Your task to perform on an android device: move a message to another label in the gmail app Image 0: 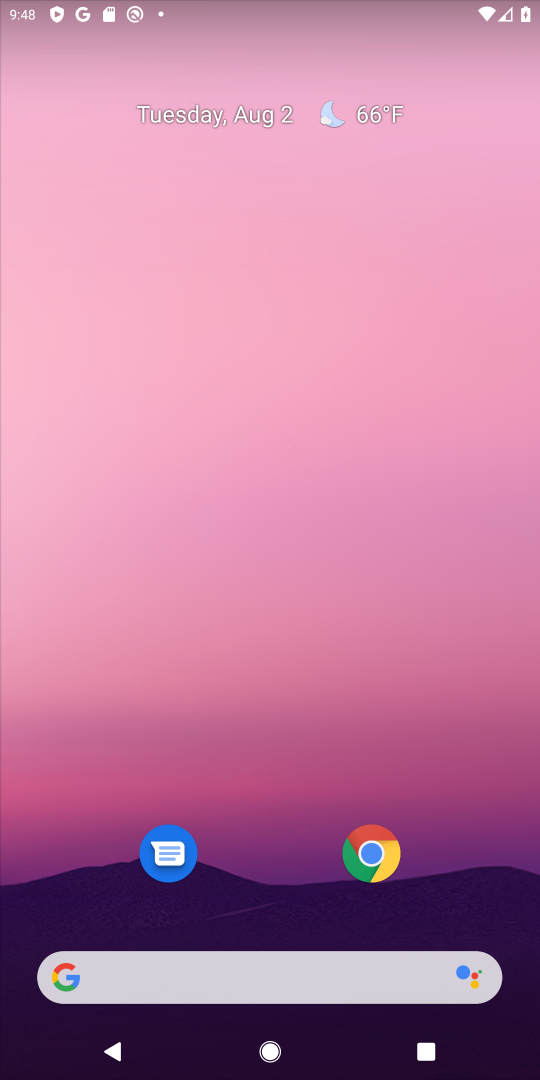
Step 0: drag from (481, 870) to (402, 113)
Your task to perform on an android device: move a message to another label in the gmail app Image 1: 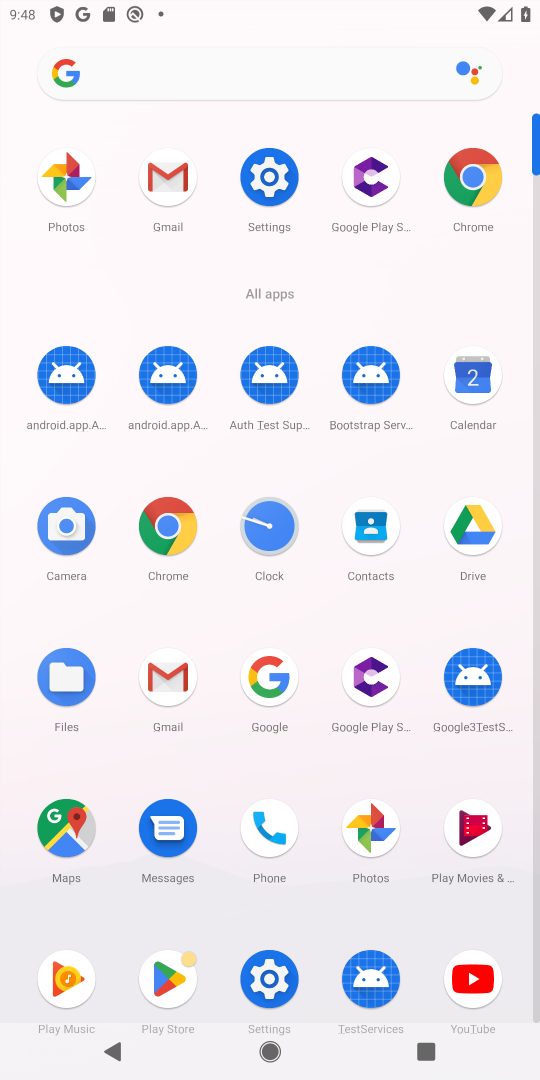
Step 1: click (173, 203)
Your task to perform on an android device: move a message to another label in the gmail app Image 2: 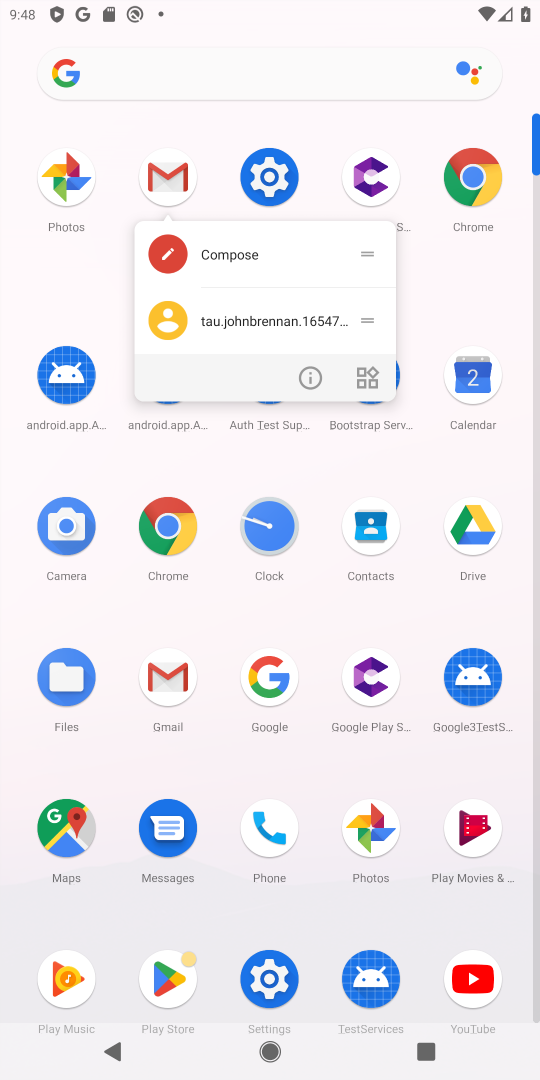
Step 2: click (156, 173)
Your task to perform on an android device: move a message to another label in the gmail app Image 3: 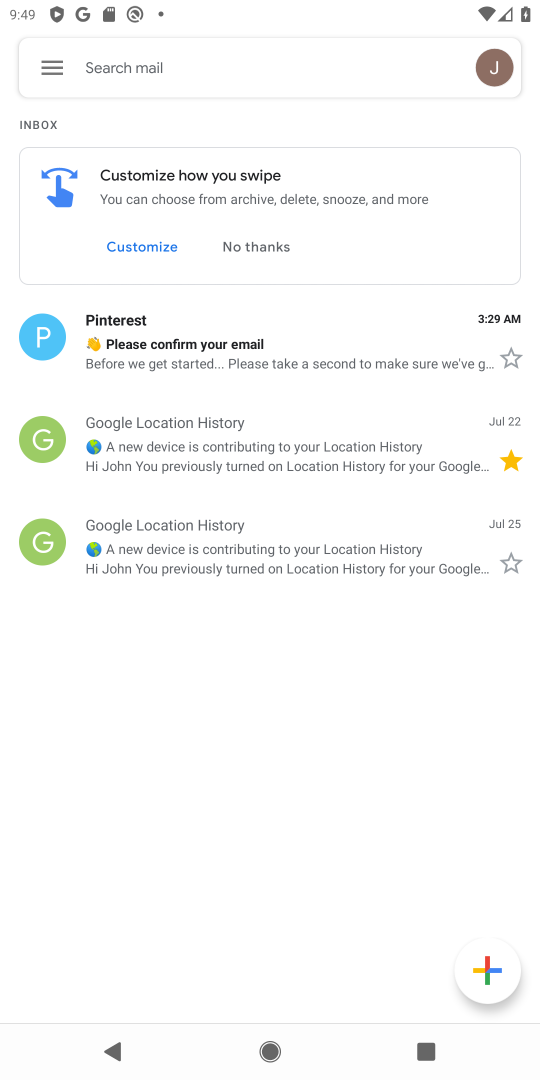
Step 3: click (245, 366)
Your task to perform on an android device: move a message to another label in the gmail app Image 4: 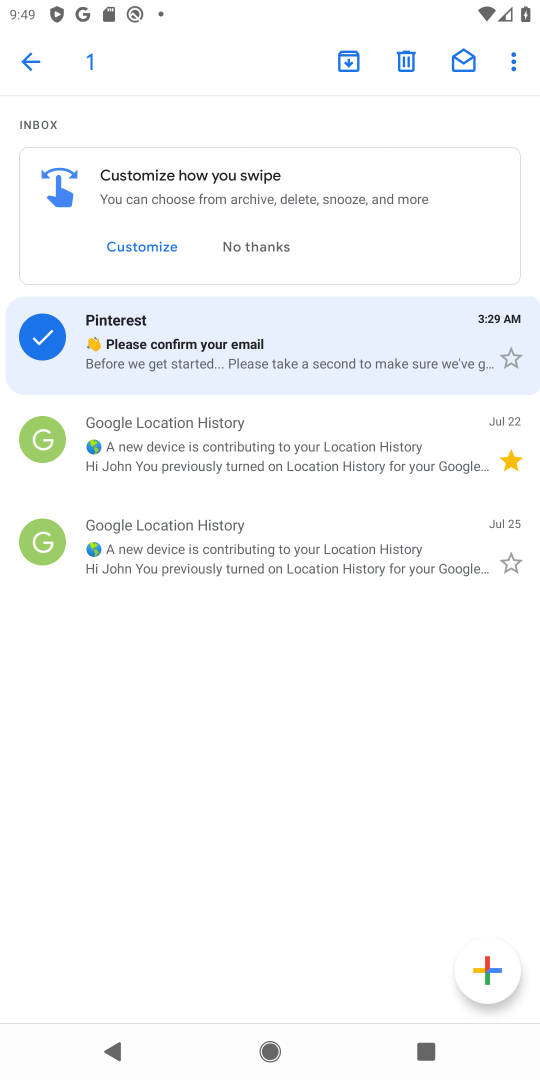
Step 4: click (507, 66)
Your task to perform on an android device: move a message to another label in the gmail app Image 5: 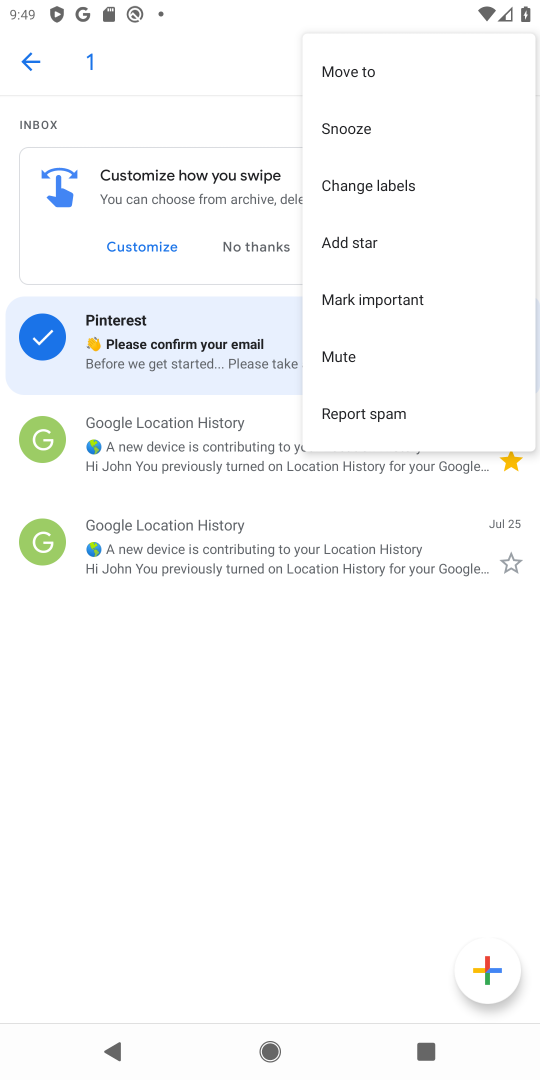
Step 5: click (398, 78)
Your task to perform on an android device: move a message to another label in the gmail app Image 6: 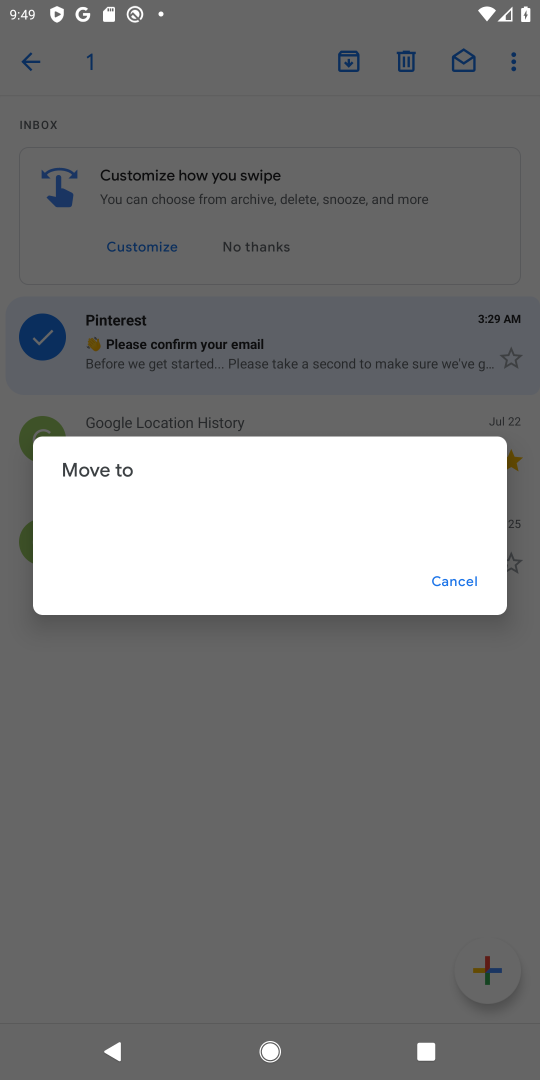
Step 6: click (469, 589)
Your task to perform on an android device: move a message to another label in the gmail app Image 7: 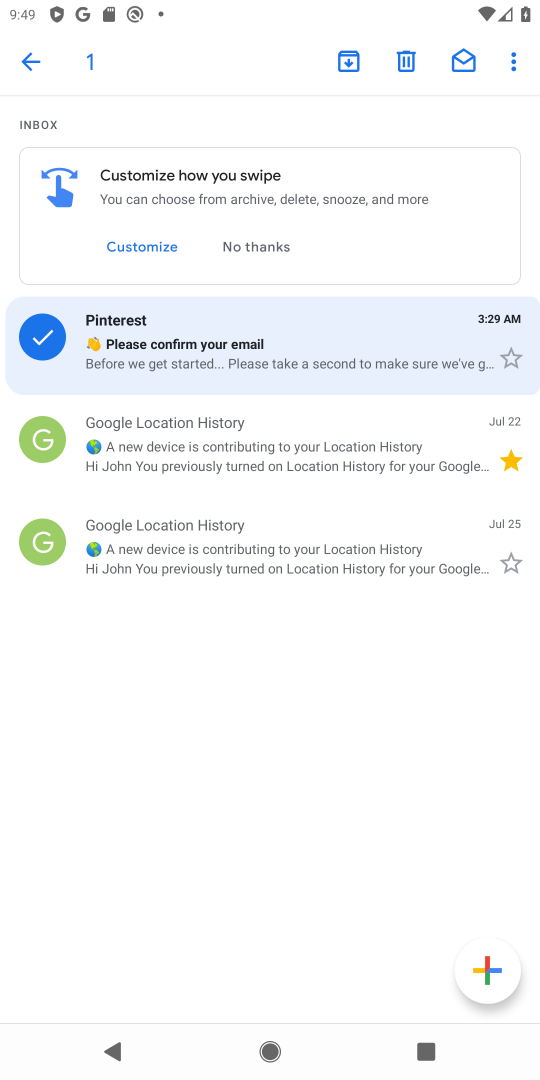
Step 7: task complete